Your task to perform on an android device: turn on the 12-hour format for clock Image 0: 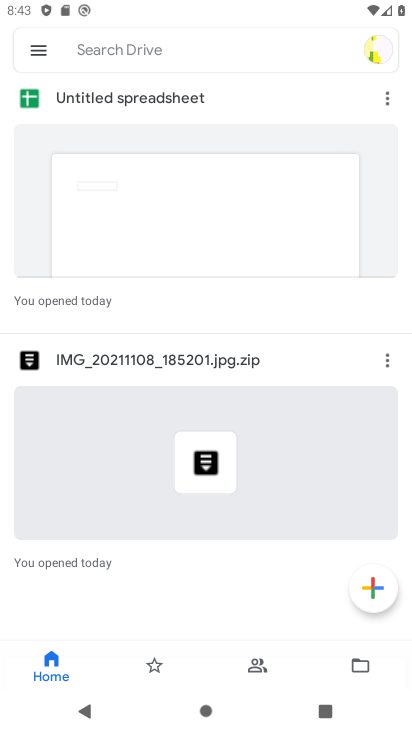
Step 0: press back button
Your task to perform on an android device: turn on the 12-hour format for clock Image 1: 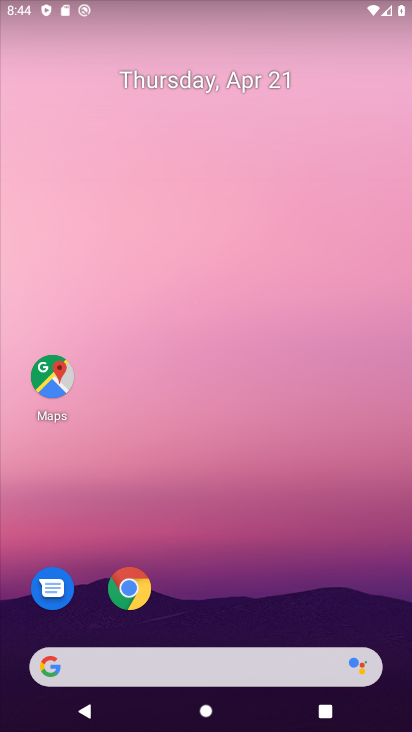
Step 1: drag from (293, 549) to (266, 76)
Your task to perform on an android device: turn on the 12-hour format for clock Image 2: 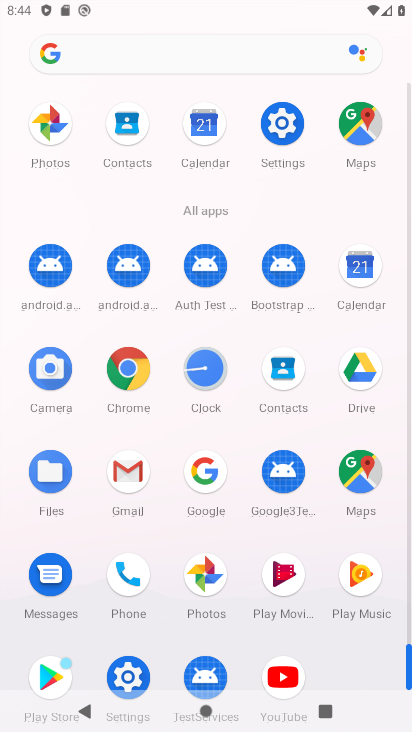
Step 2: drag from (17, 559) to (14, 213)
Your task to perform on an android device: turn on the 12-hour format for clock Image 3: 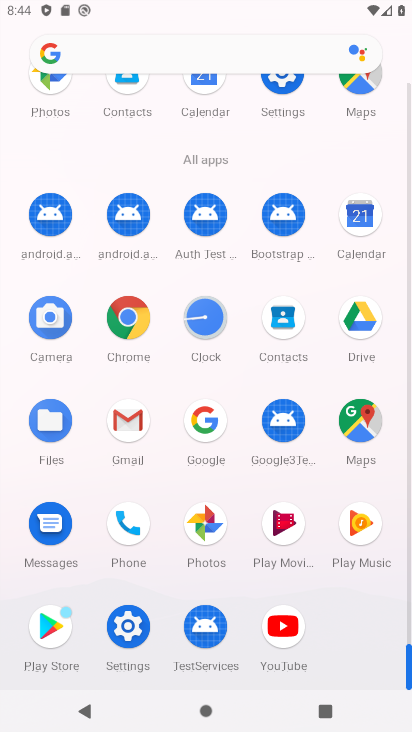
Step 3: drag from (15, 208) to (11, 384)
Your task to perform on an android device: turn on the 12-hour format for clock Image 4: 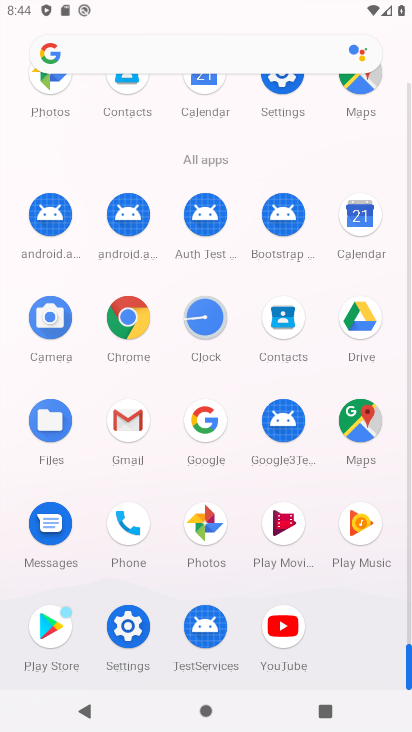
Step 4: click (205, 314)
Your task to perform on an android device: turn on the 12-hour format for clock Image 5: 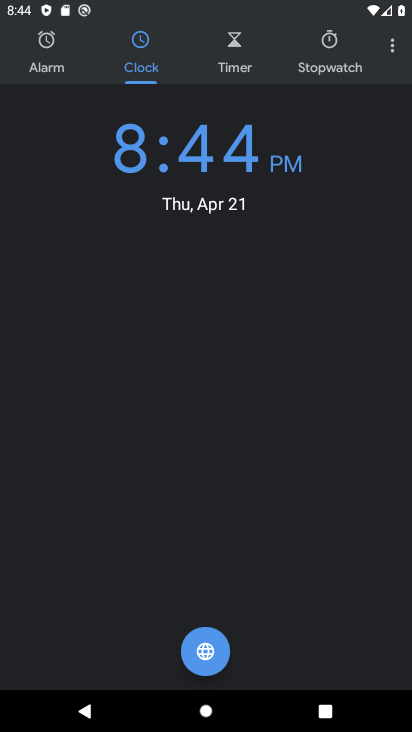
Step 5: click (389, 46)
Your task to perform on an android device: turn on the 12-hour format for clock Image 6: 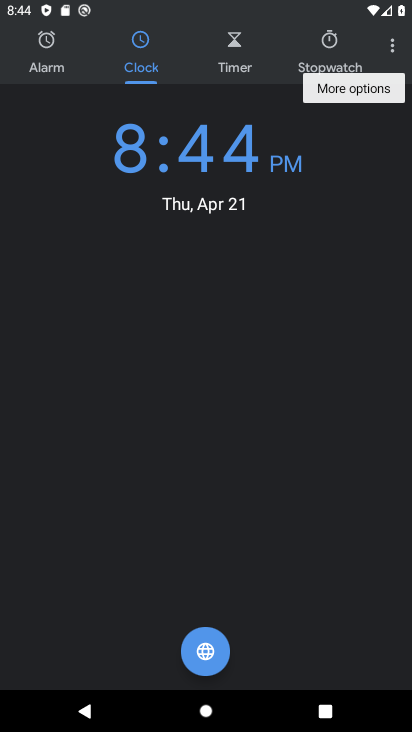
Step 6: click (392, 52)
Your task to perform on an android device: turn on the 12-hour format for clock Image 7: 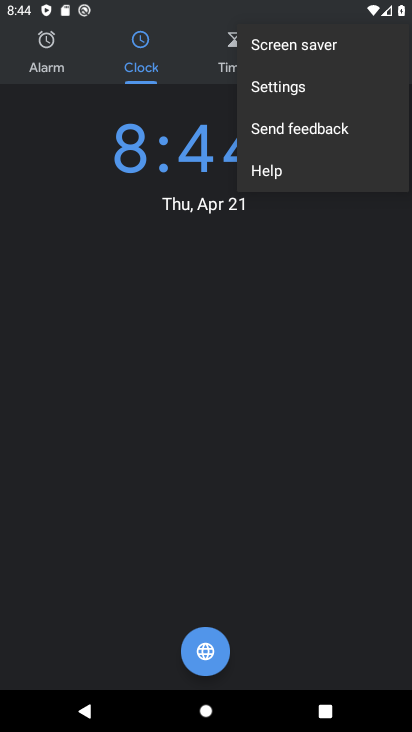
Step 7: click (306, 96)
Your task to perform on an android device: turn on the 12-hour format for clock Image 8: 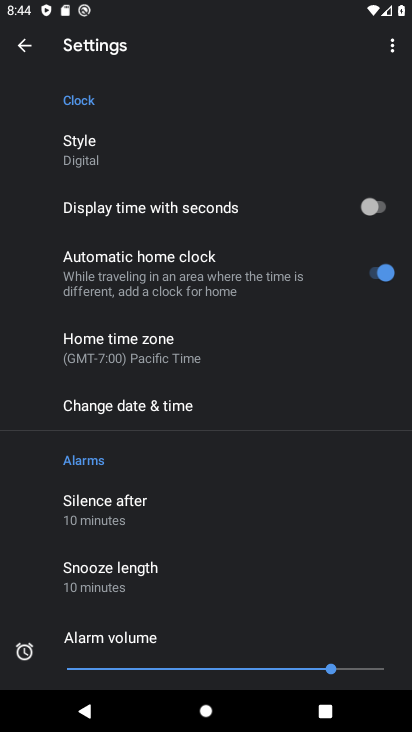
Step 8: click (147, 403)
Your task to perform on an android device: turn on the 12-hour format for clock Image 9: 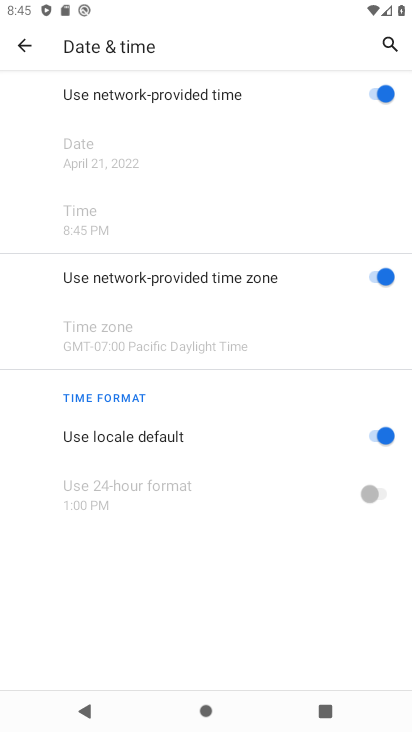
Step 9: task complete